Your task to perform on an android device: turn on airplane mode Image 0: 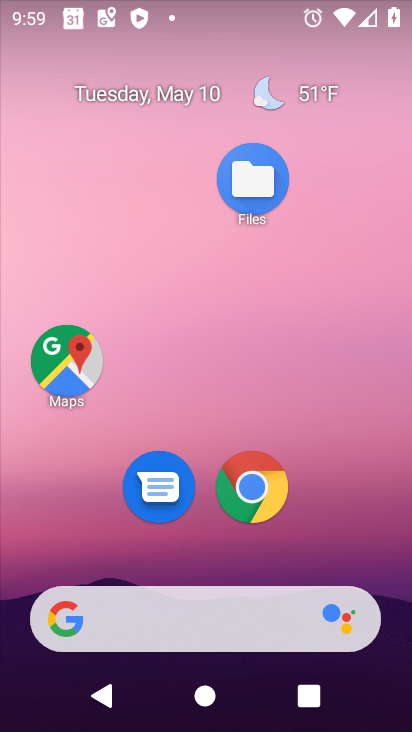
Step 0: drag from (226, 554) to (222, 109)
Your task to perform on an android device: turn on airplane mode Image 1: 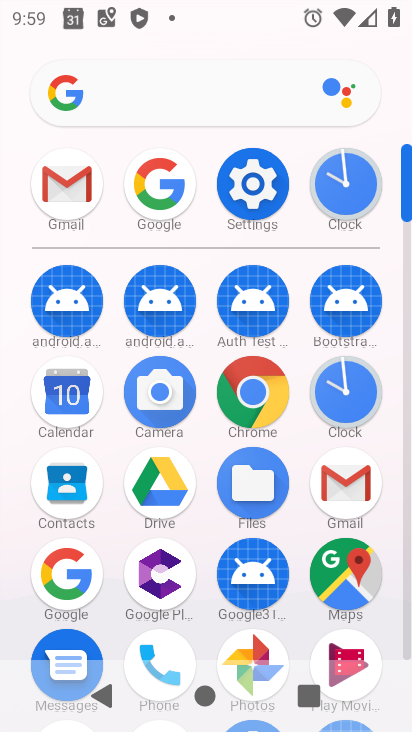
Step 1: click (252, 184)
Your task to perform on an android device: turn on airplane mode Image 2: 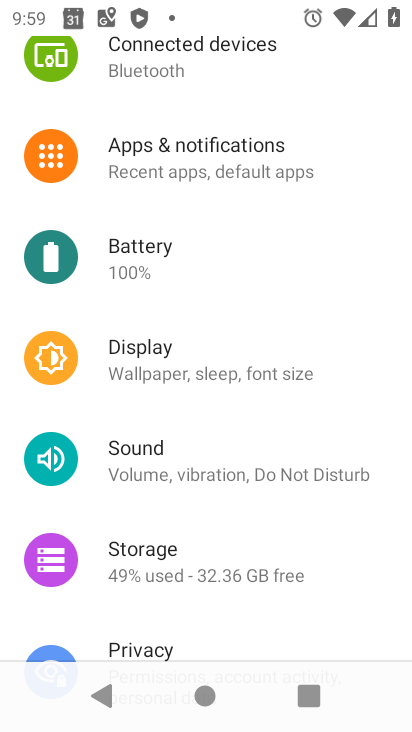
Step 2: drag from (227, 146) to (280, 703)
Your task to perform on an android device: turn on airplane mode Image 3: 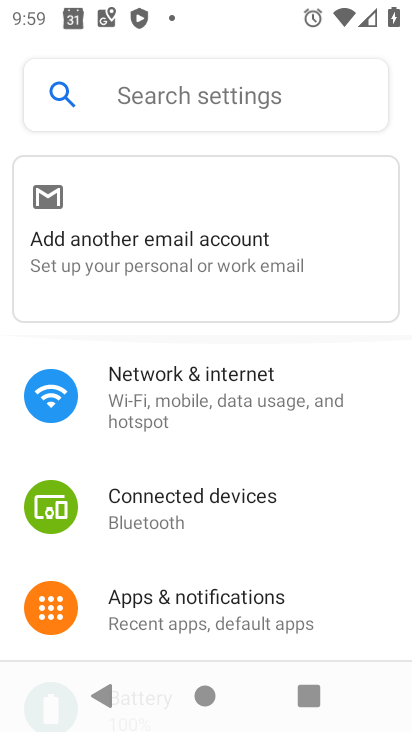
Step 3: click (208, 398)
Your task to perform on an android device: turn on airplane mode Image 4: 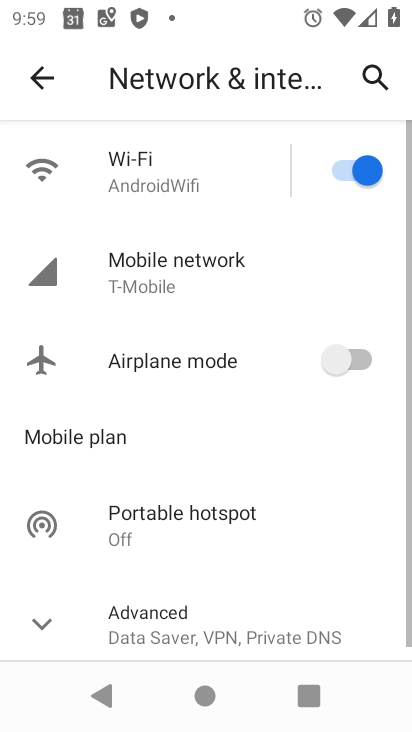
Step 4: click (303, 358)
Your task to perform on an android device: turn on airplane mode Image 5: 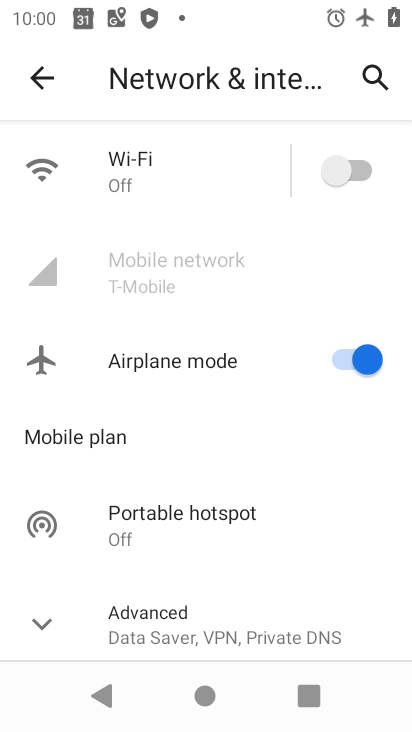
Step 5: task complete